Your task to perform on an android device: Search for vegetarian restaurants on Maps Image 0: 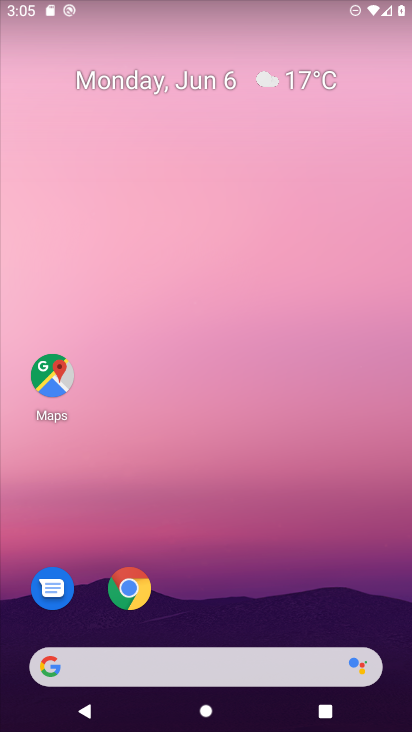
Step 0: click (61, 369)
Your task to perform on an android device: Search for vegetarian restaurants on Maps Image 1: 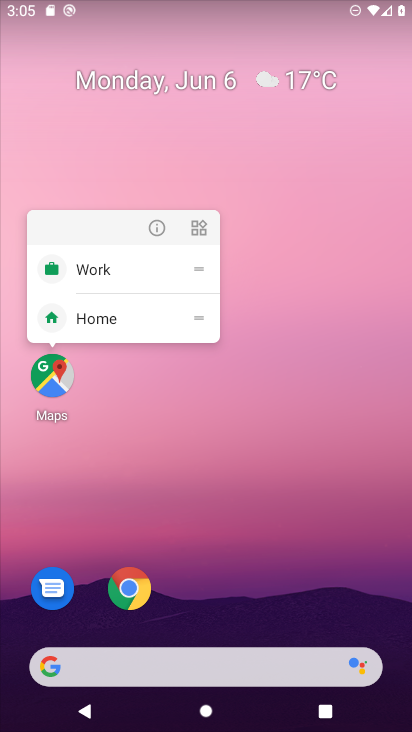
Step 1: click (55, 371)
Your task to perform on an android device: Search for vegetarian restaurants on Maps Image 2: 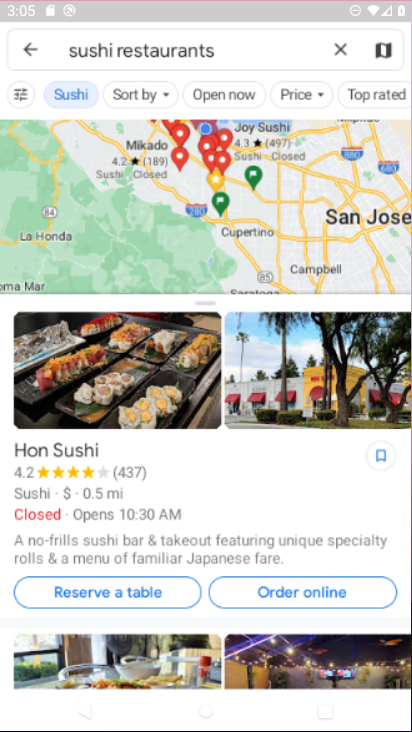
Step 2: click (55, 371)
Your task to perform on an android device: Search for vegetarian restaurants on Maps Image 3: 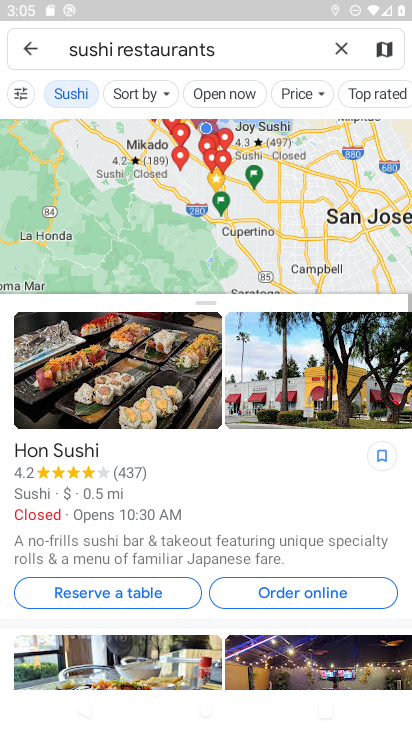
Step 3: click (337, 46)
Your task to perform on an android device: Search for vegetarian restaurants on Maps Image 4: 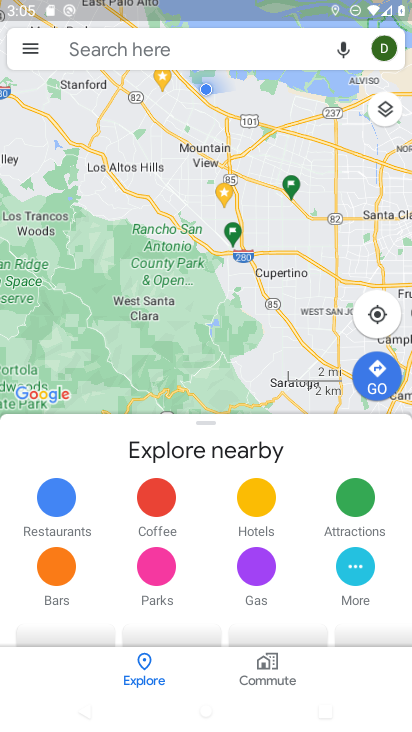
Step 4: click (251, 52)
Your task to perform on an android device: Search for vegetarian restaurants on Maps Image 5: 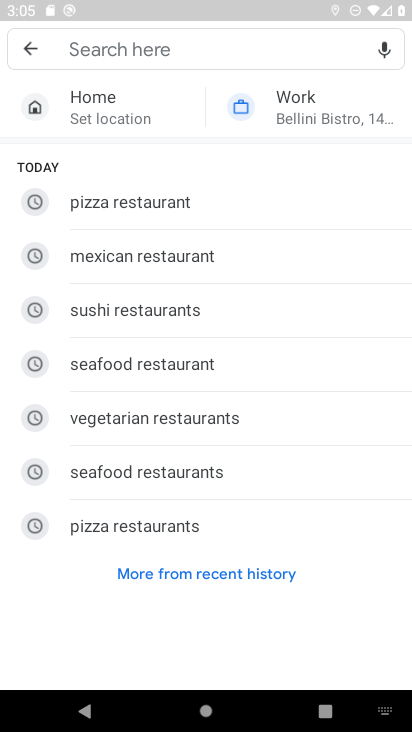
Step 5: click (131, 429)
Your task to perform on an android device: Search for vegetarian restaurants on Maps Image 6: 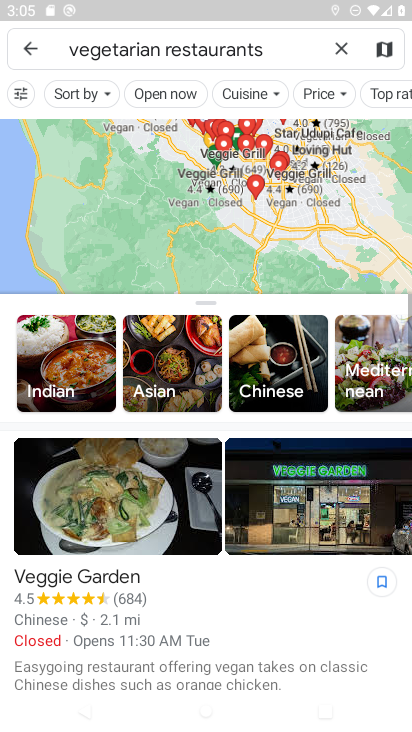
Step 6: task complete